Your task to perform on an android device: Search for Italian restaurants on Maps Image 0: 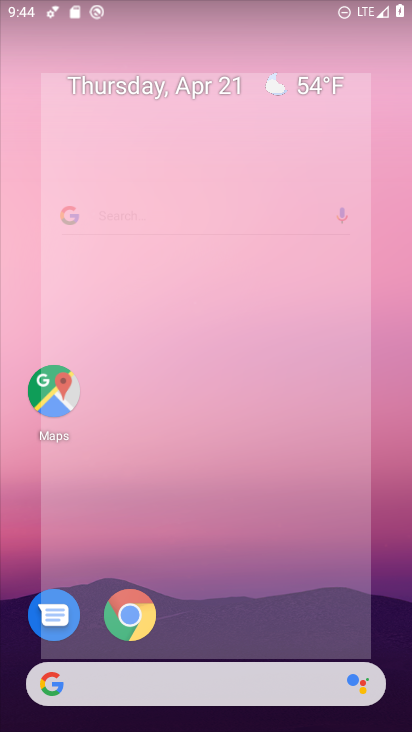
Step 0: drag from (227, 519) to (324, 37)
Your task to perform on an android device: Search for Italian restaurants on Maps Image 1: 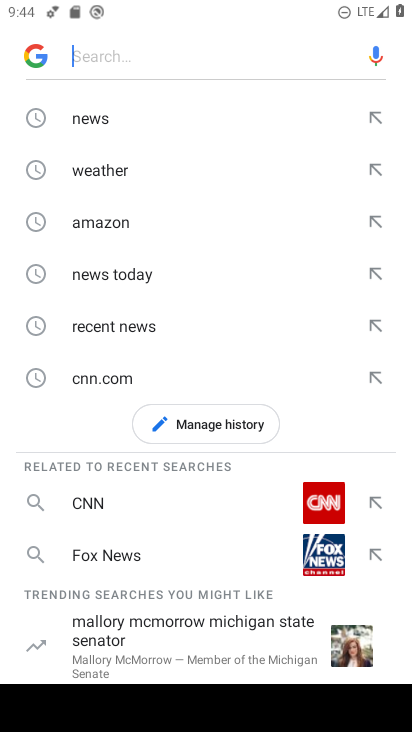
Step 1: press home button
Your task to perform on an android device: Search for Italian restaurants on Maps Image 2: 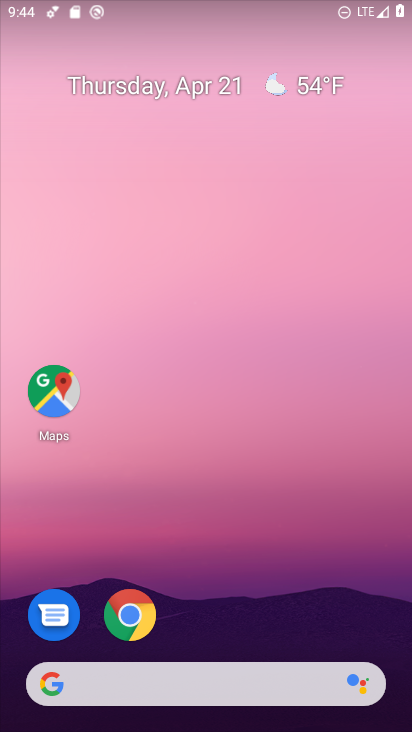
Step 2: click (51, 384)
Your task to perform on an android device: Search for Italian restaurants on Maps Image 3: 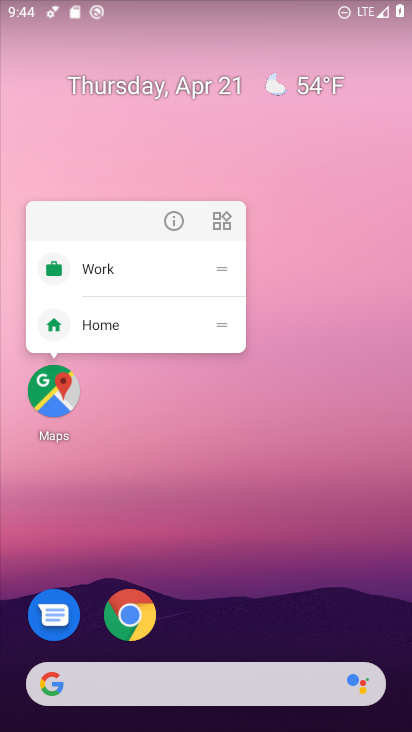
Step 3: click (51, 384)
Your task to perform on an android device: Search for Italian restaurants on Maps Image 4: 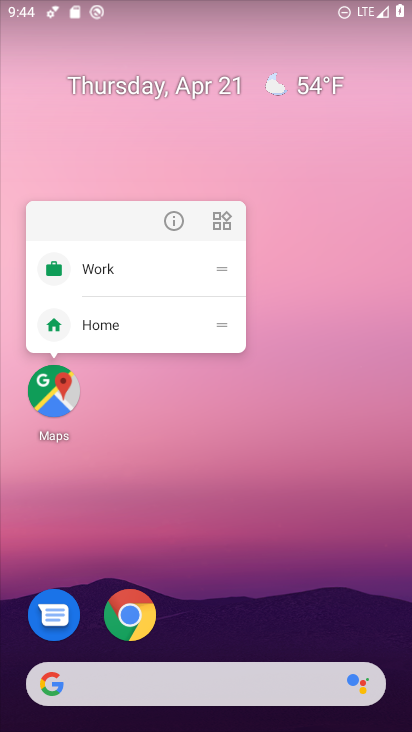
Step 4: click (51, 387)
Your task to perform on an android device: Search for Italian restaurants on Maps Image 5: 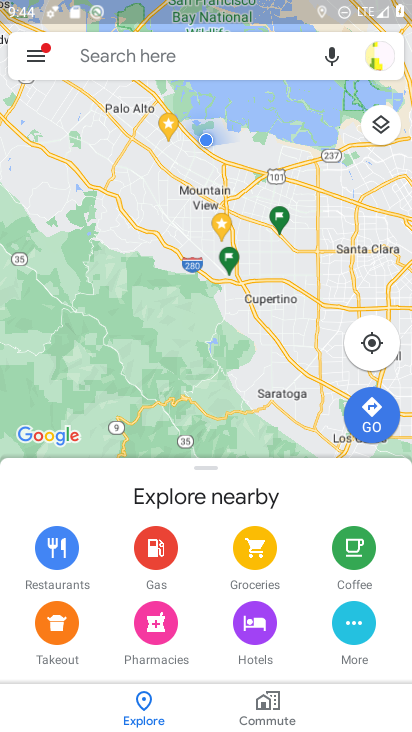
Step 5: click (180, 58)
Your task to perform on an android device: Search for Italian restaurants on Maps Image 6: 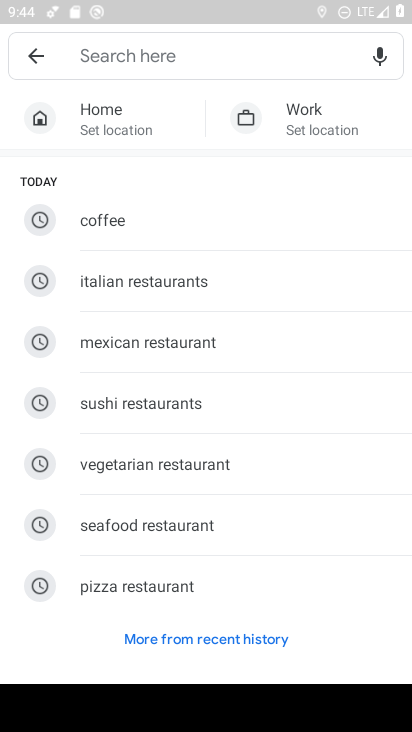
Step 6: click (137, 282)
Your task to perform on an android device: Search for Italian restaurants on Maps Image 7: 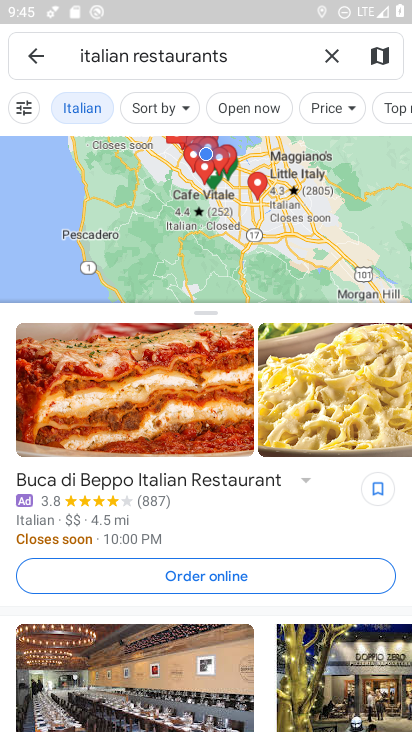
Step 7: task complete